Your task to perform on an android device: Open wifi settings Image 0: 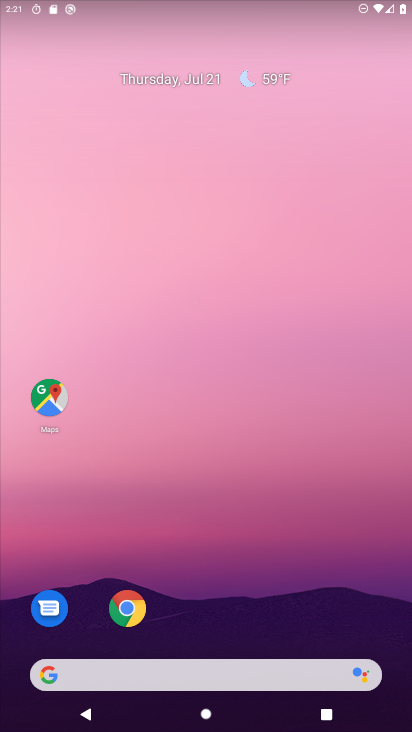
Step 0: drag from (215, 622) to (260, 39)
Your task to perform on an android device: Open wifi settings Image 1: 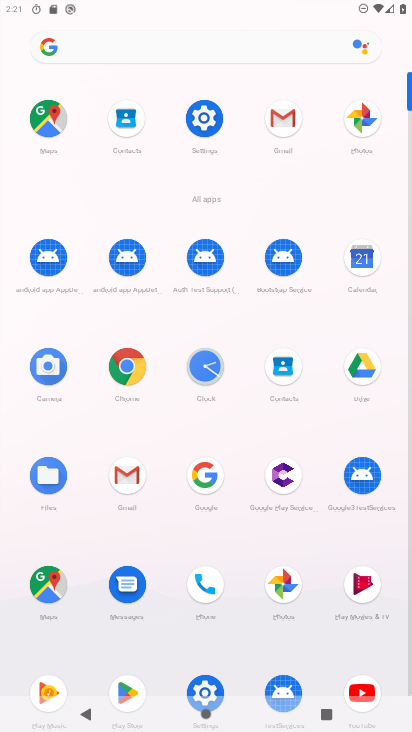
Step 1: click (202, 114)
Your task to perform on an android device: Open wifi settings Image 2: 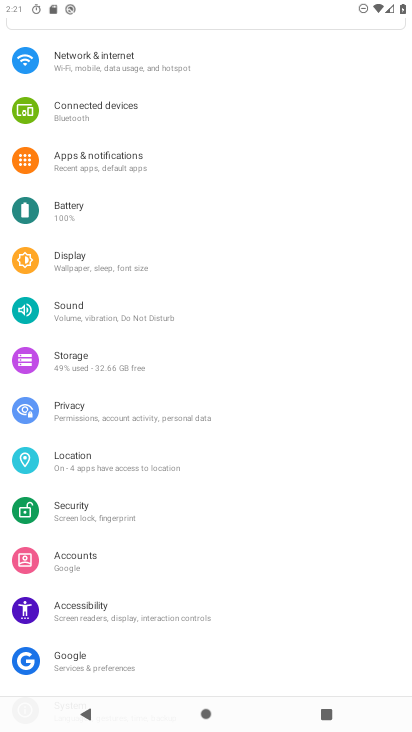
Step 2: click (149, 65)
Your task to perform on an android device: Open wifi settings Image 3: 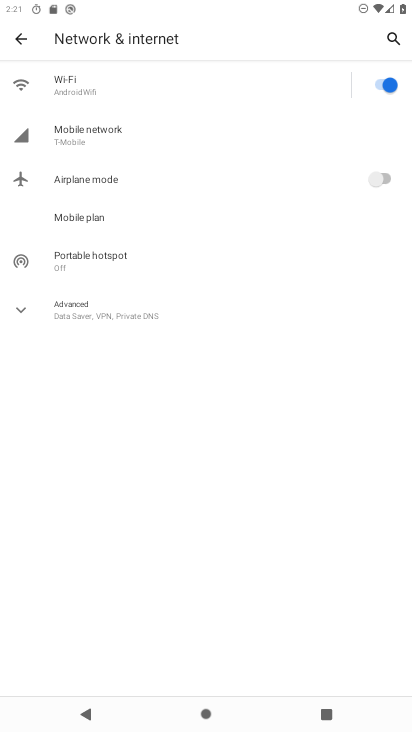
Step 3: click (42, 88)
Your task to perform on an android device: Open wifi settings Image 4: 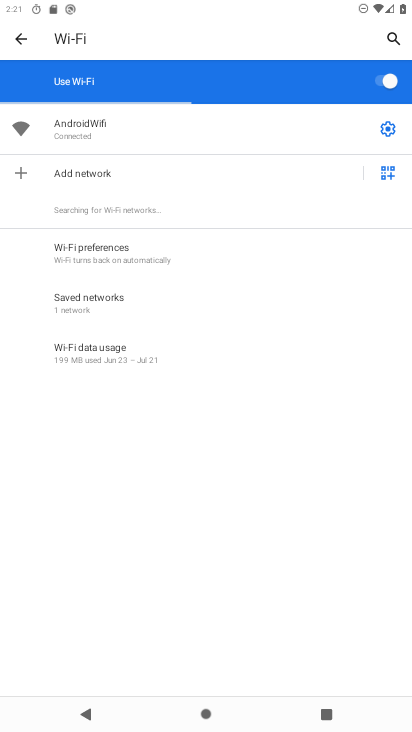
Step 4: task complete